Your task to perform on an android device: Search for Mexican restaurants on Maps Image 0: 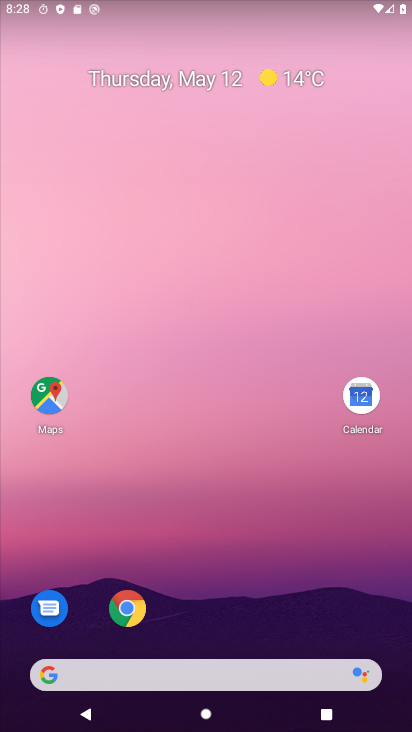
Step 0: click (57, 382)
Your task to perform on an android device: Search for Mexican restaurants on Maps Image 1: 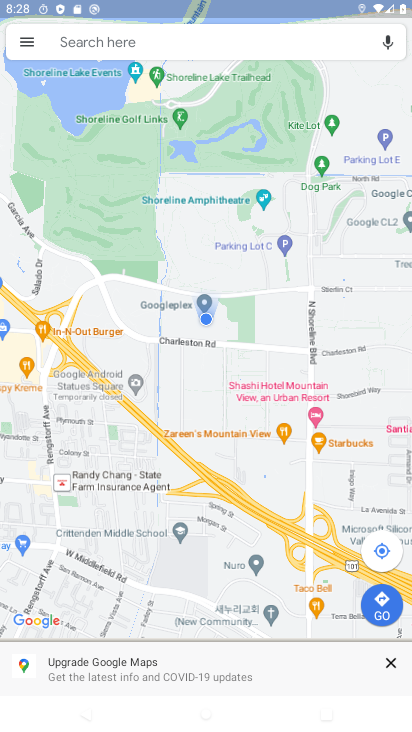
Step 1: click (214, 46)
Your task to perform on an android device: Search for Mexican restaurants on Maps Image 2: 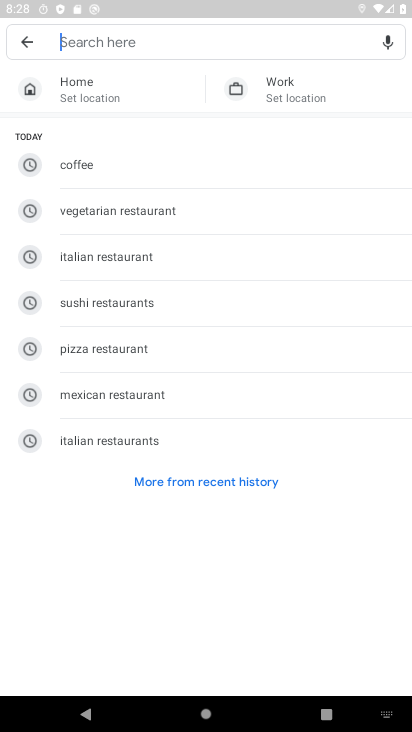
Step 2: click (175, 391)
Your task to perform on an android device: Search for Mexican restaurants on Maps Image 3: 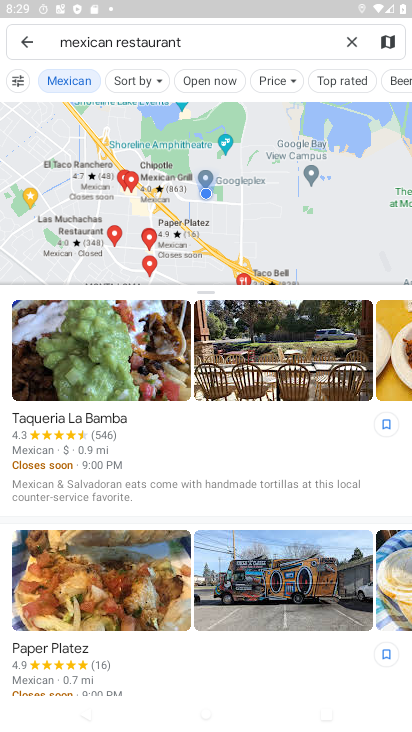
Step 3: task complete